Your task to perform on an android device: open app "The Home Depot" Image 0: 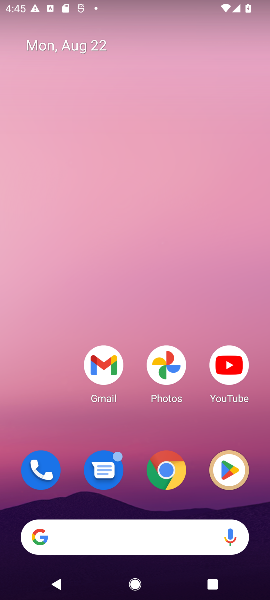
Step 0: drag from (135, 465) to (129, 217)
Your task to perform on an android device: open app "The Home Depot" Image 1: 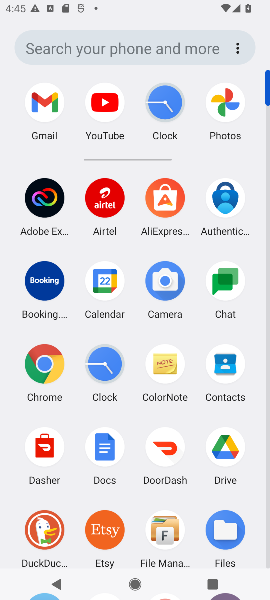
Step 1: drag from (148, 496) to (157, 195)
Your task to perform on an android device: open app "The Home Depot" Image 2: 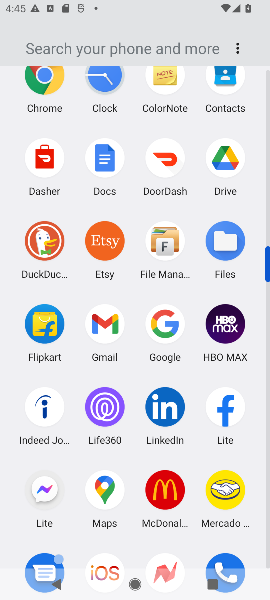
Step 2: drag from (68, 444) to (96, 256)
Your task to perform on an android device: open app "The Home Depot" Image 3: 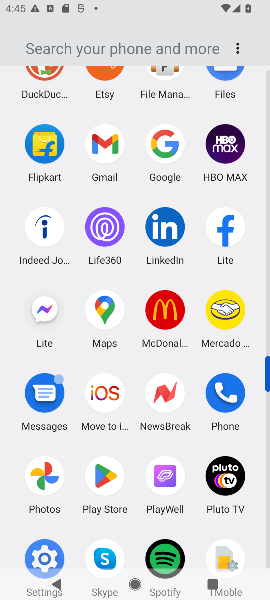
Step 3: click (100, 473)
Your task to perform on an android device: open app "The Home Depot" Image 4: 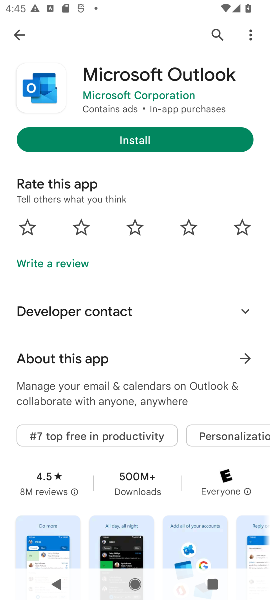
Step 4: click (19, 36)
Your task to perform on an android device: open app "The Home Depot" Image 5: 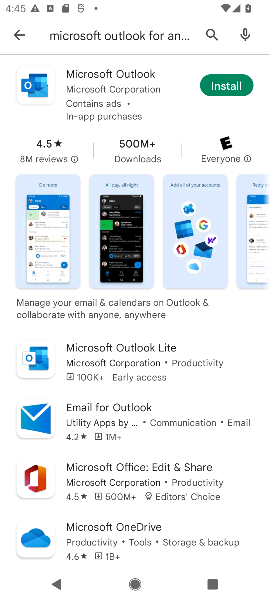
Step 5: click (15, 34)
Your task to perform on an android device: open app "The Home Depot" Image 6: 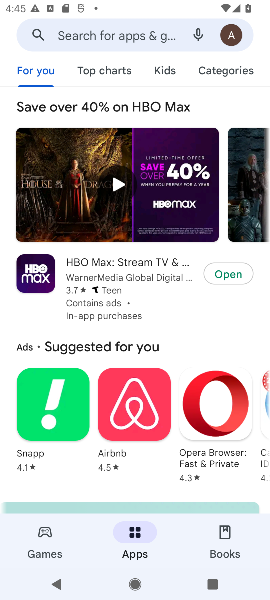
Step 6: click (70, 34)
Your task to perform on an android device: open app "The Home Depot" Image 7: 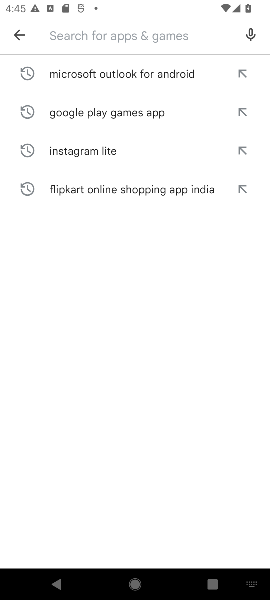
Step 7: click (153, 31)
Your task to perform on an android device: open app "The Home Depot" Image 8: 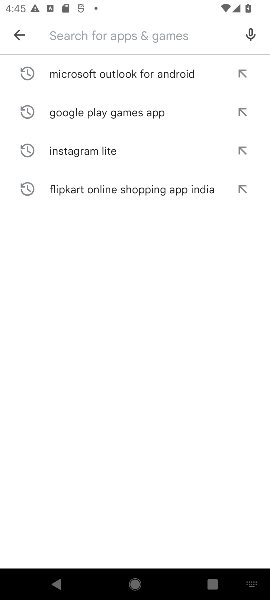
Step 8: type "The Home Depot "
Your task to perform on an android device: open app "The Home Depot" Image 9: 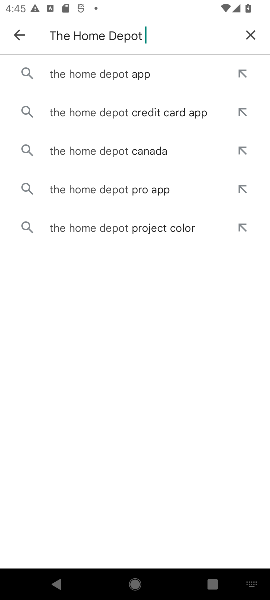
Step 9: click (94, 82)
Your task to perform on an android device: open app "The Home Depot" Image 10: 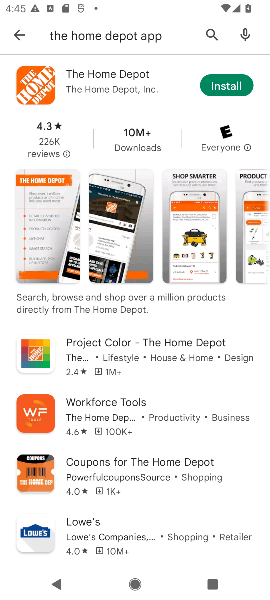
Step 10: click (233, 84)
Your task to perform on an android device: open app "The Home Depot" Image 11: 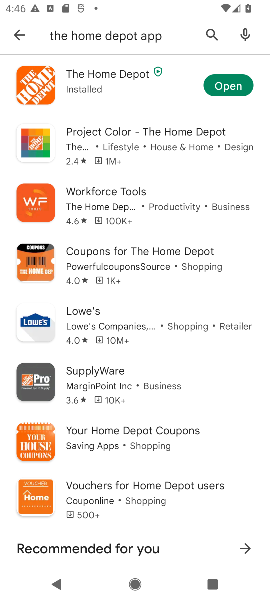
Step 11: click (235, 90)
Your task to perform on an android device: open app "The Home Depot" Image 12: 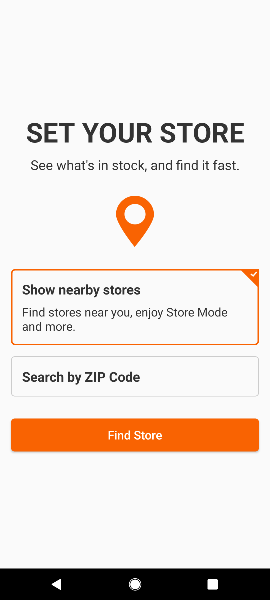
Step 12: task complete